Your task to perform on an android device: Show me the alarms in the clock app Image 0: 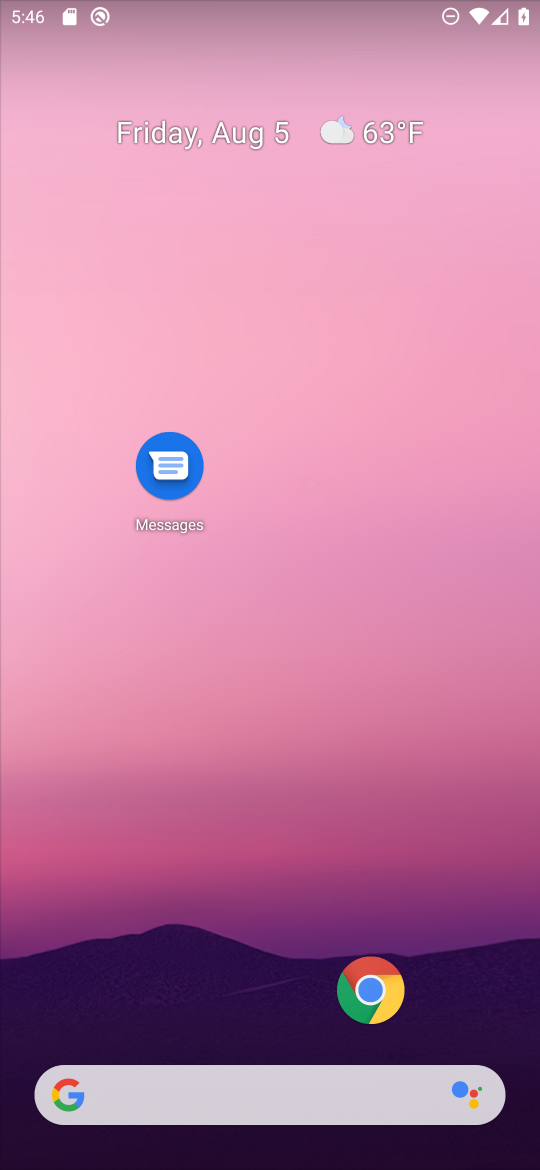
Step 0: click (161, 421)
Your task to perform on an android device: Show me the alarms in the clock app Image 1: 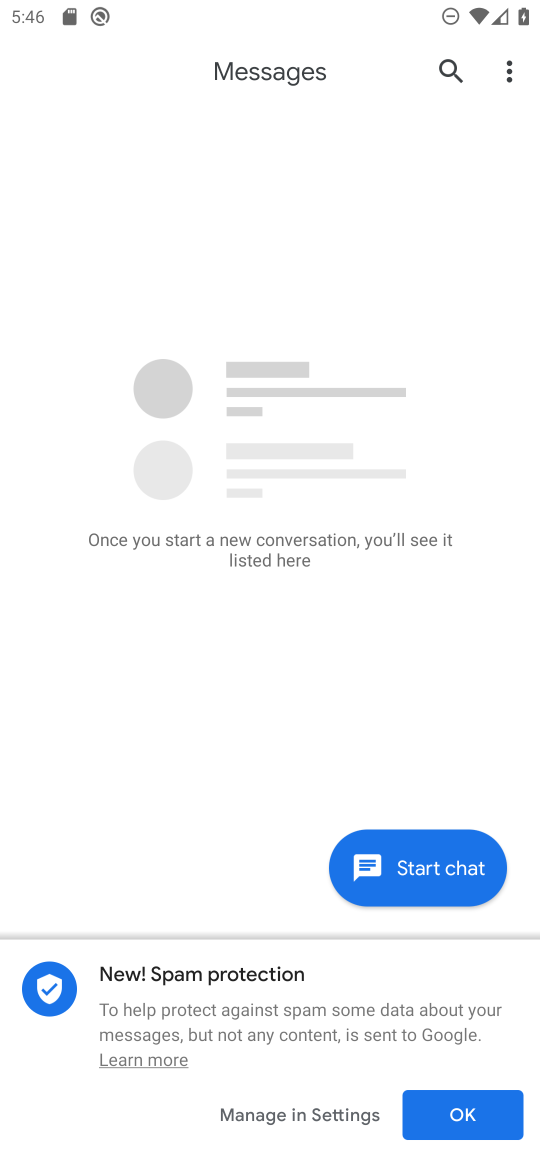
Step 1: press home button
Your task to perform on an android device: Show me the alarms in the clock app Image 2: 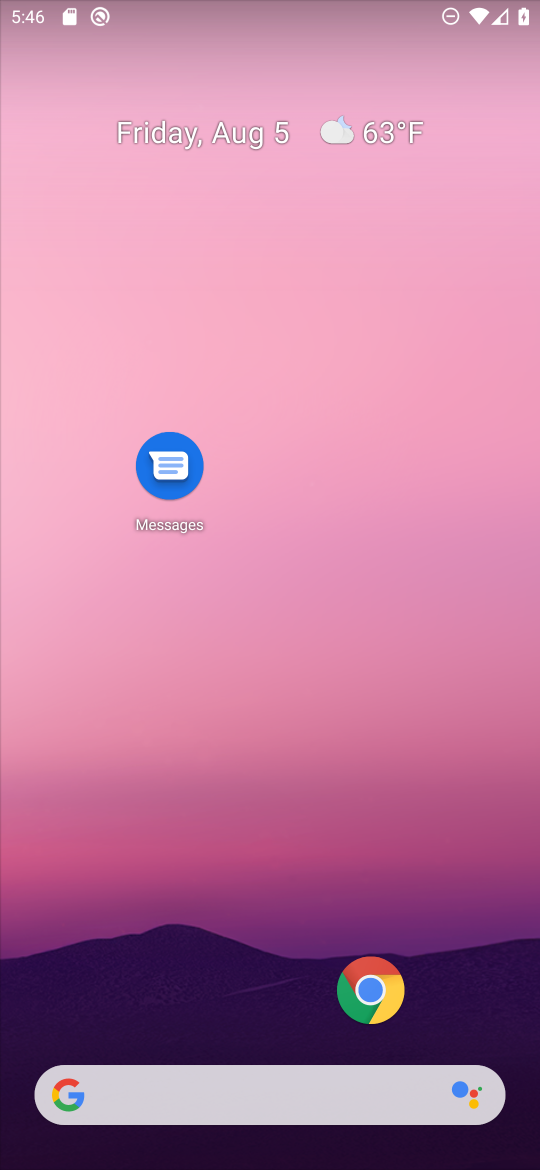
Step 2: drag from (182, 963) to (217, 557)
Your task to perform on an android device: Show me the alarms in the clock app Image 3: 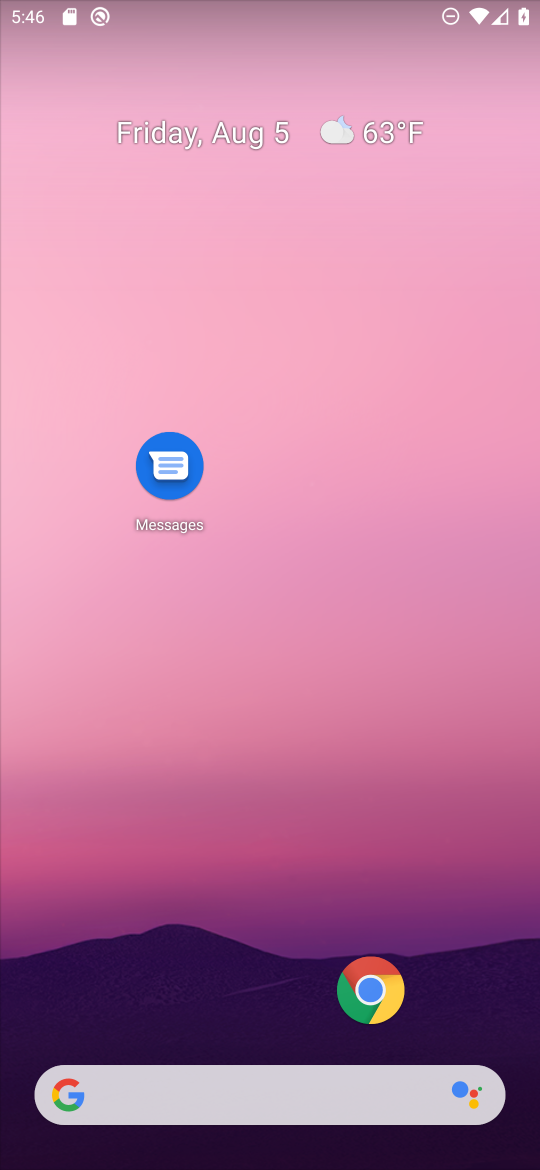
Step 3: drag from (286, 1006) to (210, 379)
Your task to perform on an android device: Show me the alarms in the clock app Image 4: 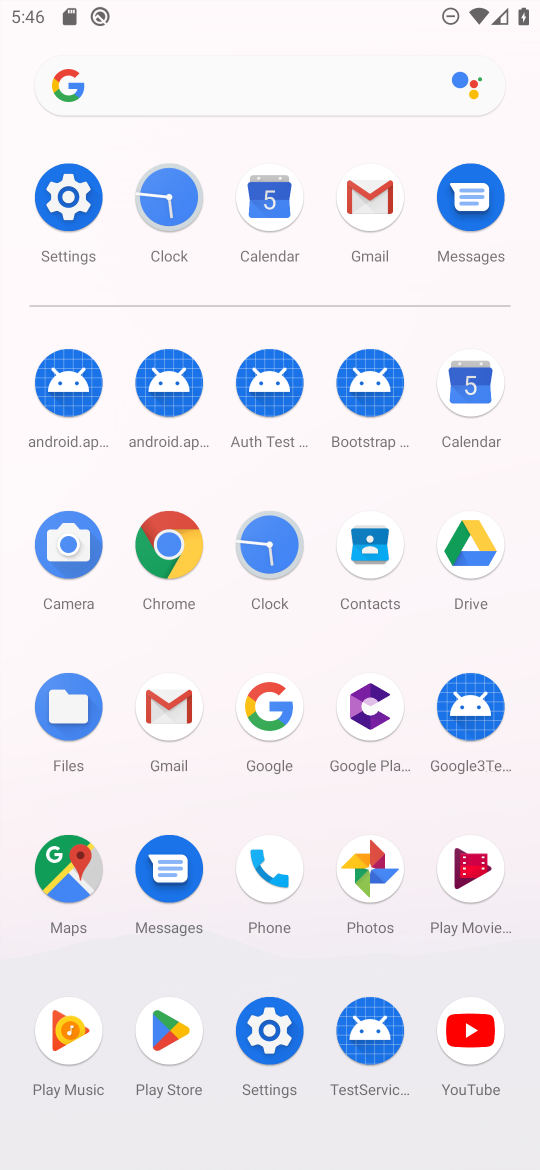
Step 4: click (243, 532)
Your task to perform on an android device: Show me the alarms in the clock app Image 5: 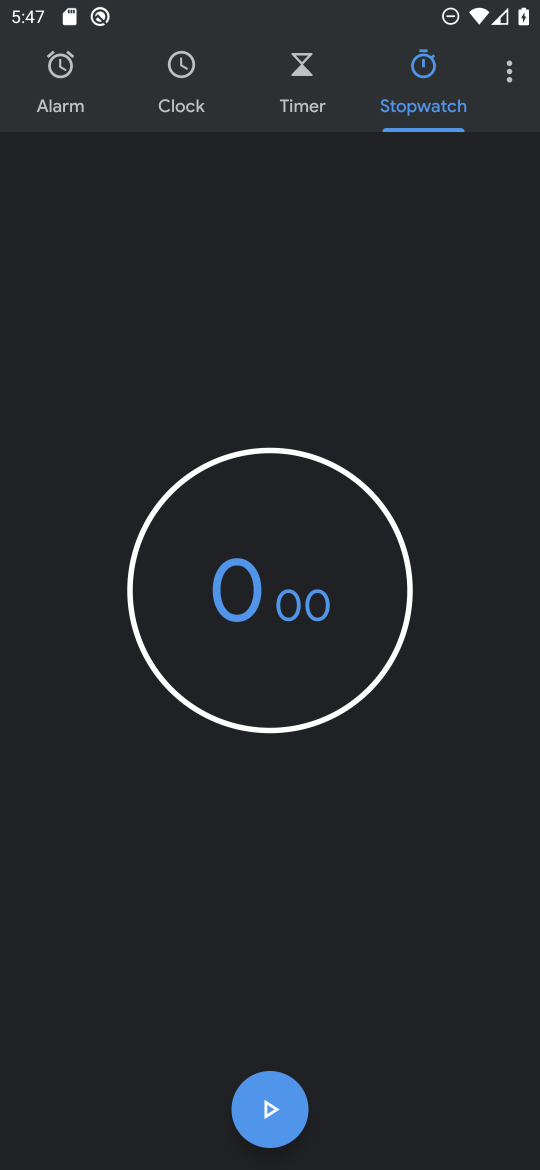
Step 5: click (47, 105)
Your task to perform on an android device: Show me the alarms in the clock app Image 6: 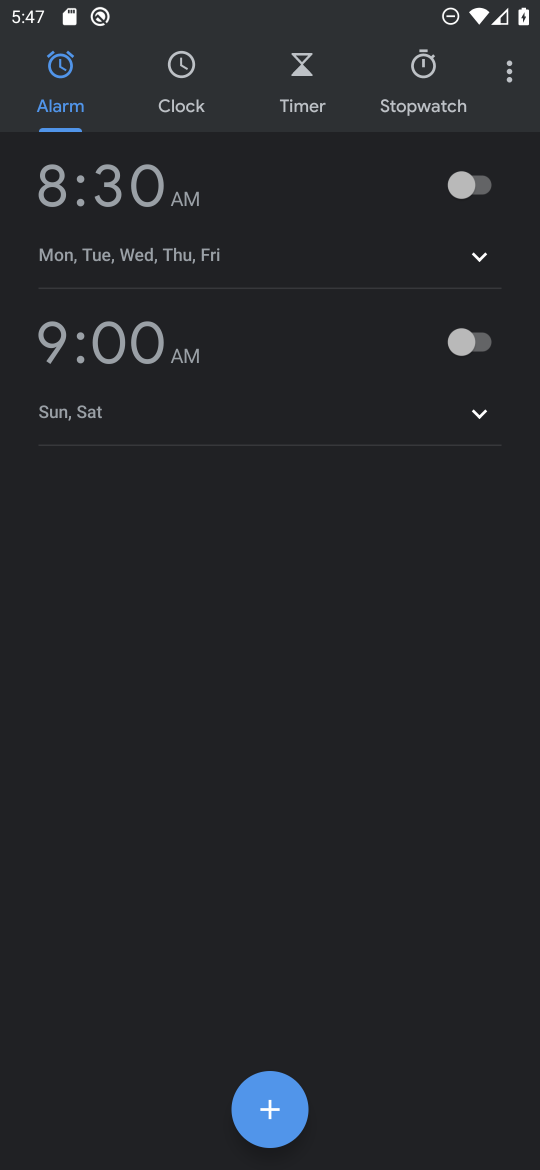
Step 6: task complete